Your task to perform on an android device: turn off notifications in google photos Image 0: 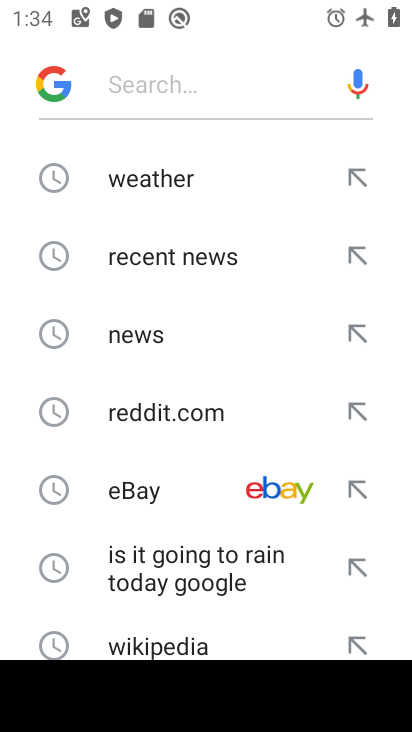
Step 0: press home button
Your task to perform on an android device: turn off notifications in google photos Image 1: 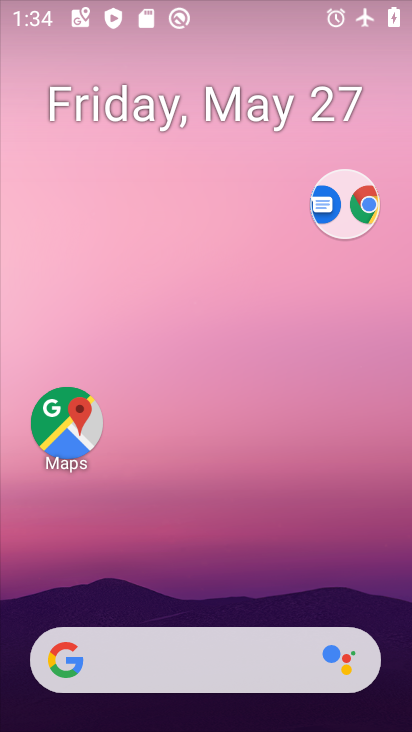
Step 1: drag from (215, 615) to (303, 126)
Your task to perform on an android device: turn off notifications in google photos Image 2: 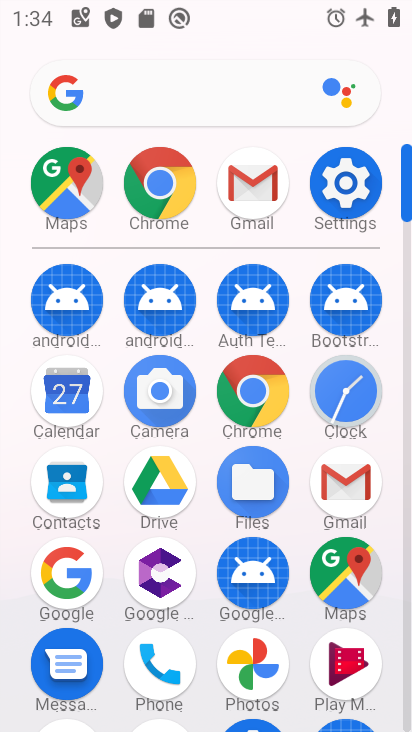
Step 2: click (273, 647)
Your task to perform on an android device: turn off notifications in google photos Image 3: 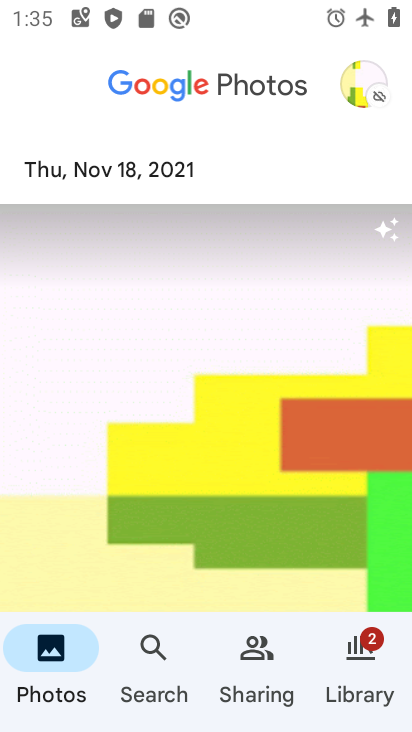
Step 3: click (336, 92)
Your task to perform on an android device: turn off notifications in google photos Image 4: 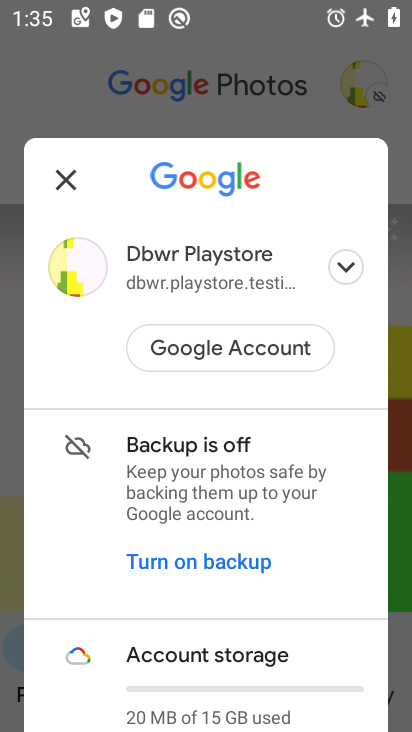
Step 4: drag from (216, 568) to (407, 24)
Your task to perform on an android device: turn off notifications in google photos Image 5: 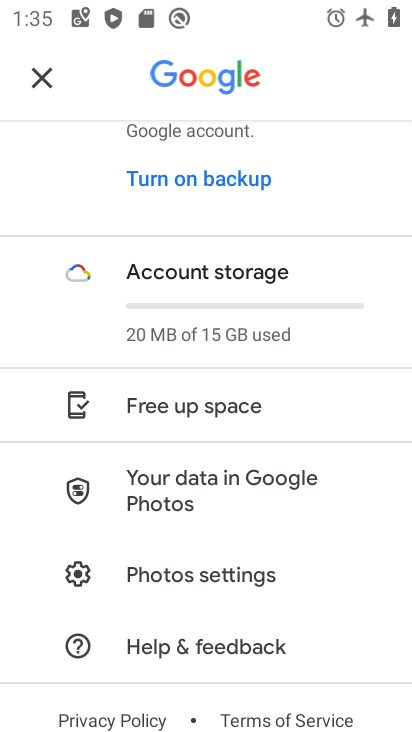
Step 5: click (203, 572)
Your task to perform on an android device: turn off notifications in google photos Image 6: 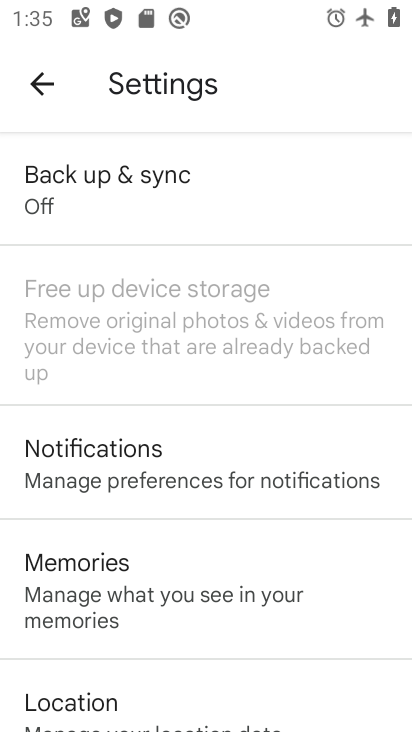
Step 6: click (220, 470)
Your task to perform on an android device: turn off notifications in google photos Image 7: 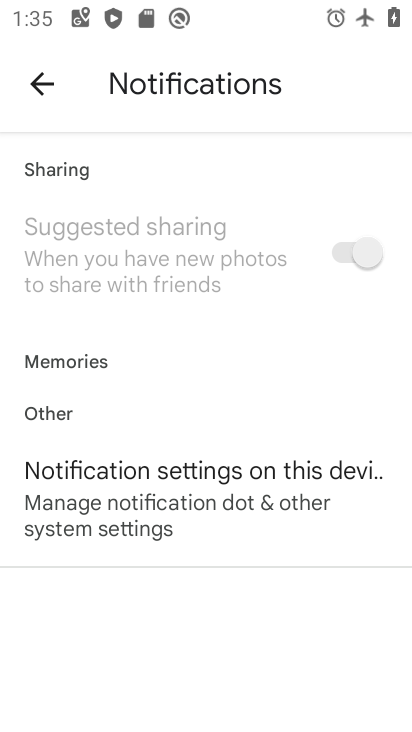
Step 7: click (230, 521)
Your task to perform on an android device: turn off notifications in google photos Image 8: 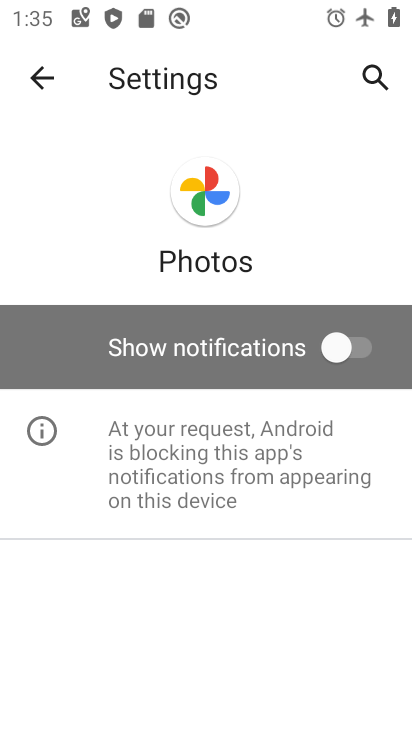
Step 8: task complete